Your task to perform on an android device: What's the weather today? Image 0: 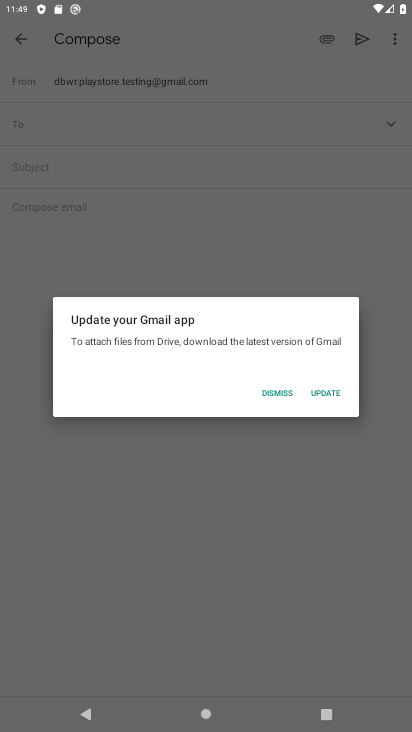
Step 0: press home button
Your task to perform on an android device: What's the weather today? Image 1: 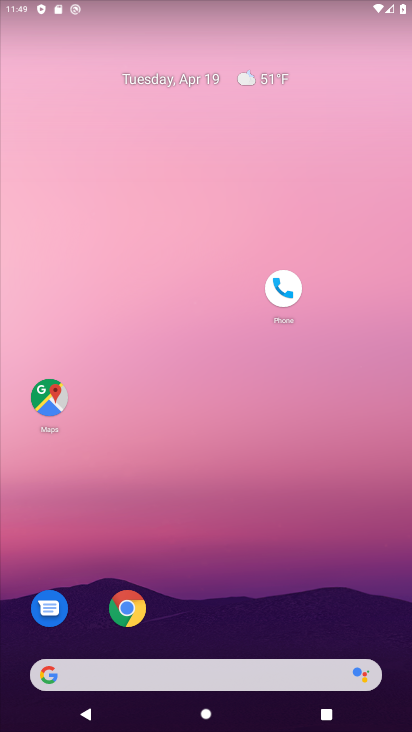
Step 1: click (124, 606)
Your task to perform on an android device: What's the weather today? Image 2: 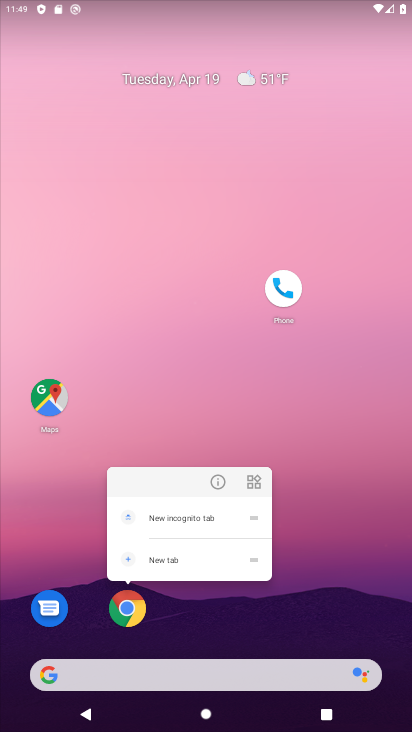
Step 2: drag from (183, 574) to (236, 115)
Your task to perform on an android device: What's the weather today? Image 3: 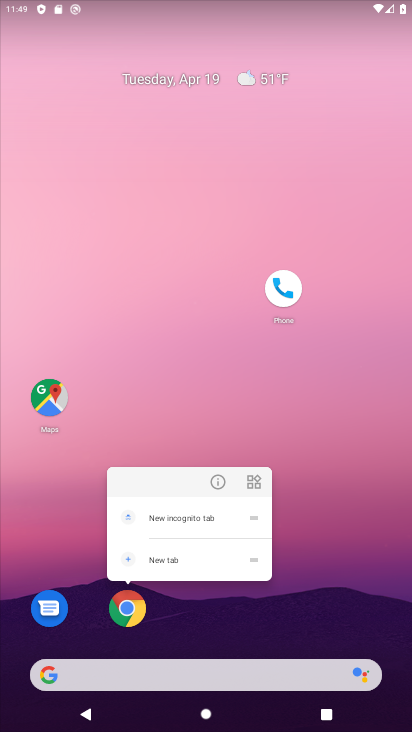
Step 3: click (121, 611)
Your task to perform on an android device: What's the weather today? Image 4: 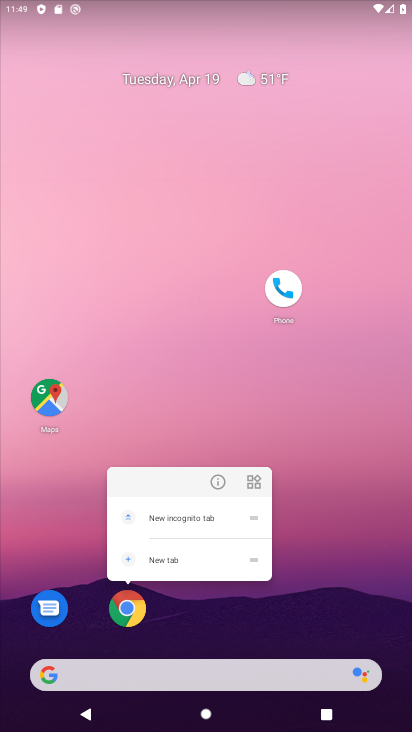
Step 4: click (131, 599)
Your task to perform on an android device: What's the weather today? Image 5: 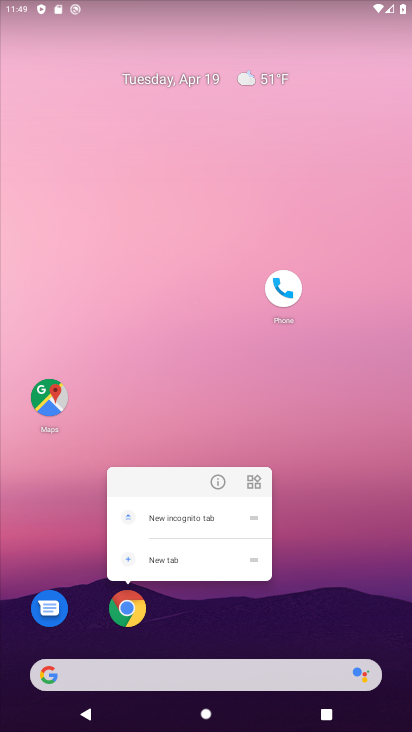
Step 5: click (133, 615)
Your task to perform on an android device: What's the weather today? Image 6: 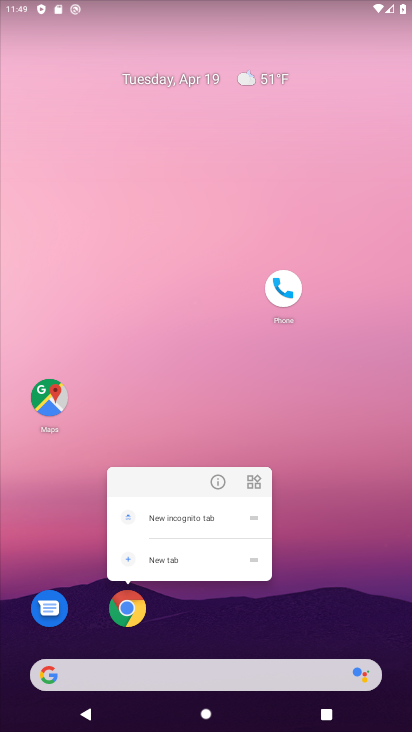
Step 6: click (132, 609)
Your task to perform on an android device: What's the weather today? Image 7: 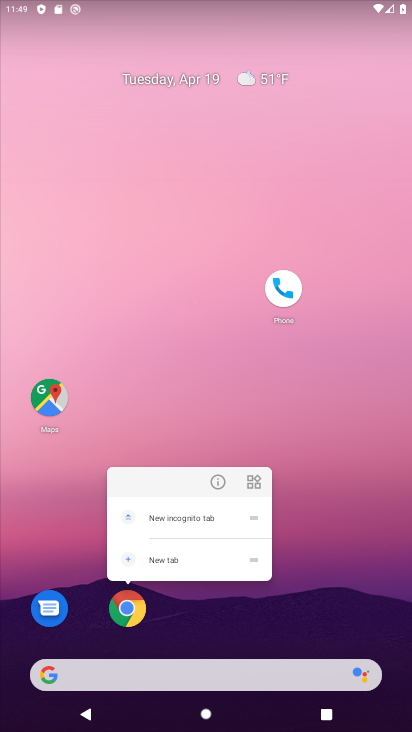
Step 7: click (178, 630)
Your task to perform on an android device: What's the weather today? Image 8: 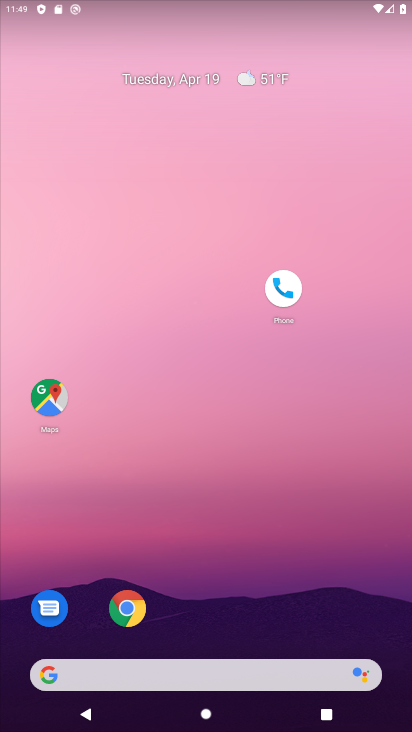
Step 8: drag from (179, 622) to (260, 46)
Your task to perform on an android device: What's the weather today? Image 9: 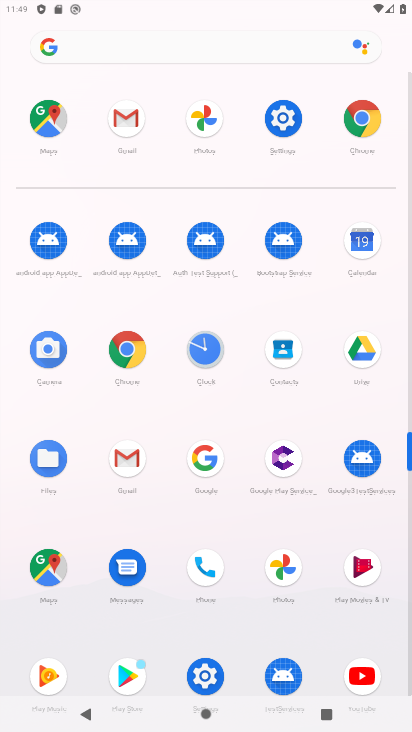
Step 9: click (360, 116)
Your task to perform on an android device: What's the weather today? Image 10: 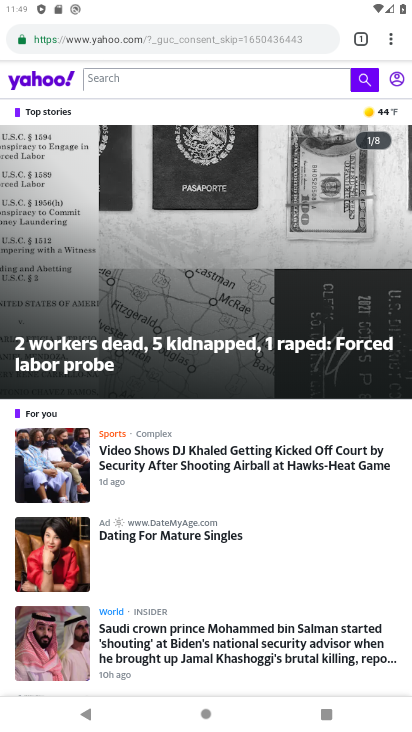
Step 10: click (97, 39)
Your task to perform on an android device: What's the weather today? Image 11: 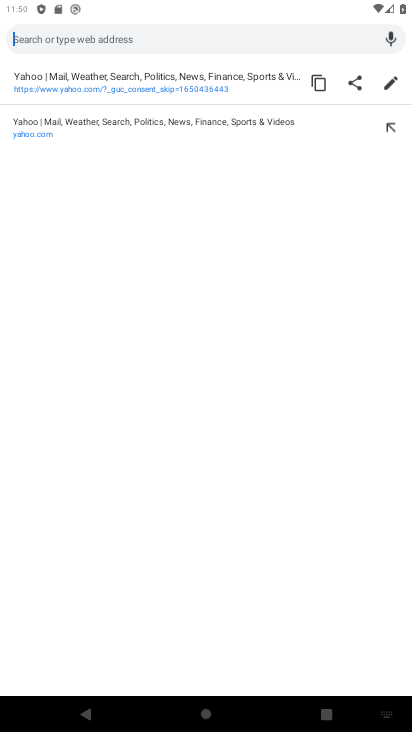
Step 11: type "weather today"
Your task to perform on an android device: What's the weather today? Image 12: 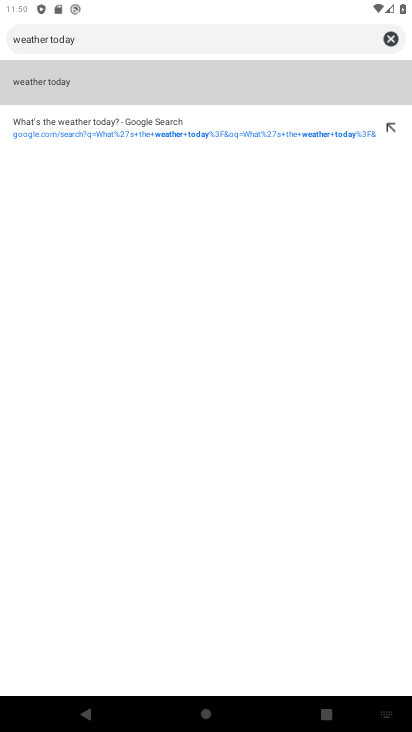
Step 12: click (54, 75)
Your task to perform on an android device: What's the weather today? Image 13: 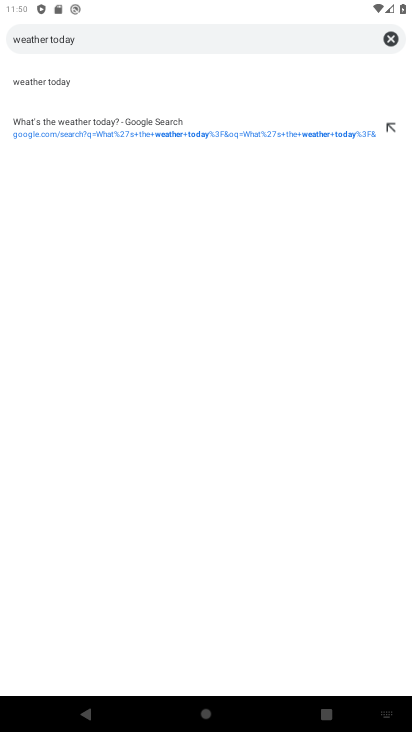
Step 13: click (55, 86)
Your task to perform on an android device: What's the weather today? Image 14: 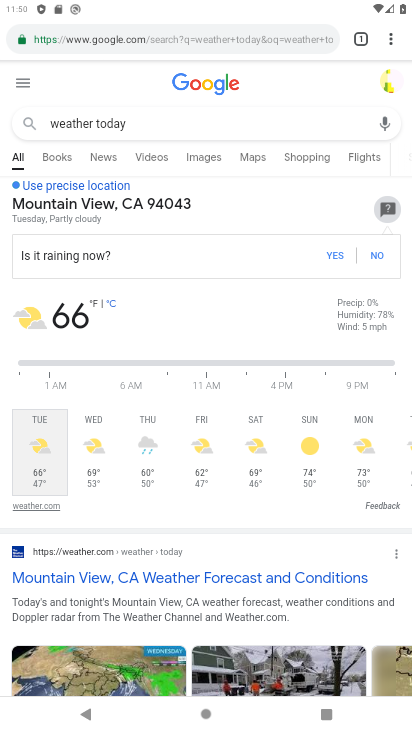
Step 14: task complete